Your task to perform on an android device: Open eBay Image 0: 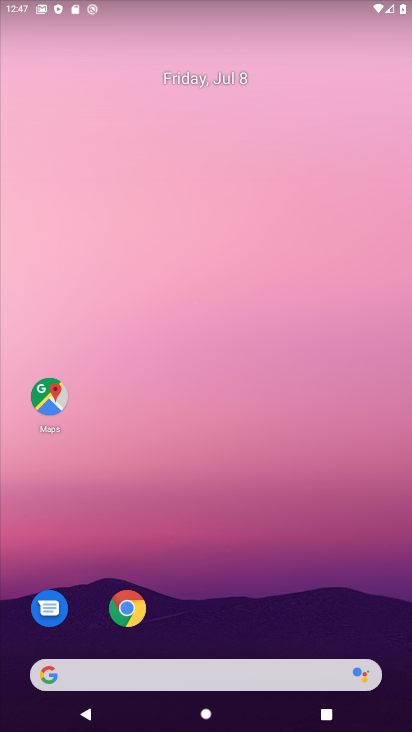
Step 0: click (128, 609)
Your task to perform on an android device: Open eBay Image 1: 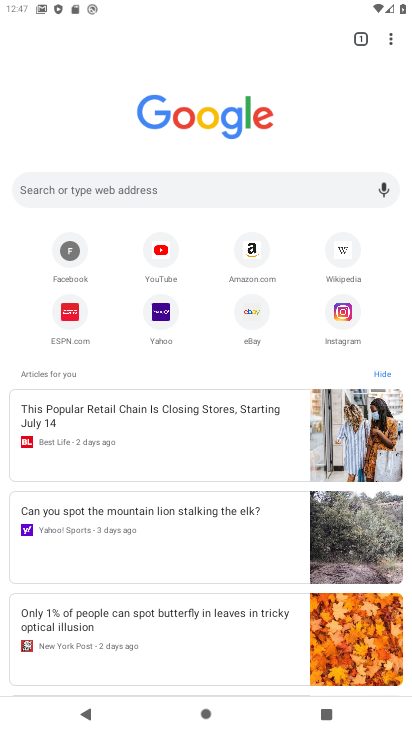
Step 1: click (98, 186)
Your task to perform on an android device: Open eBay Image 2: 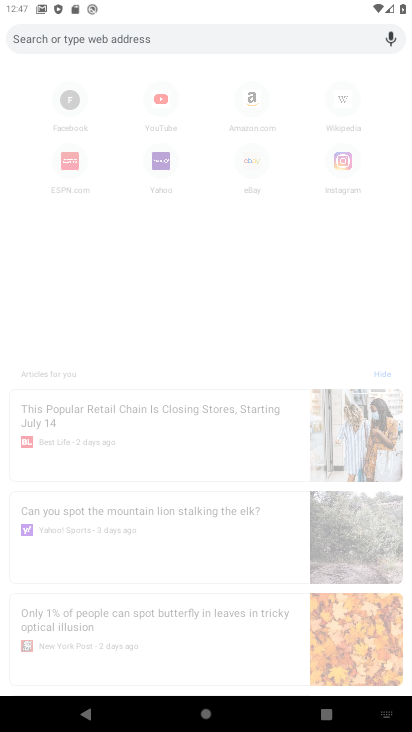
Step 2: type "eBay"
Your task to perform on an android device: Open eBay Image 3: 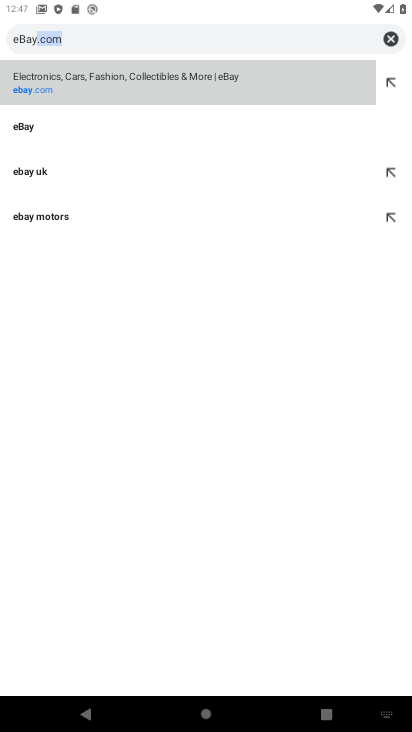
Step 3: click (52, 73)
Your task to perform on an android device: Open eBay Image 4: 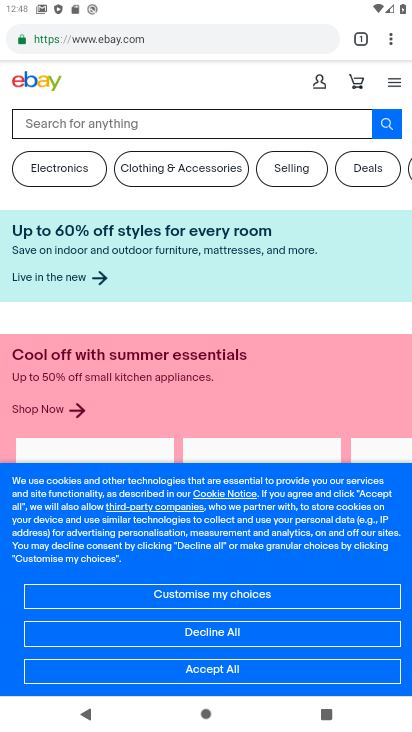
Step 4: task complete